Your task to perform on an android device: make emails show in primary in the gmail app Image 0: 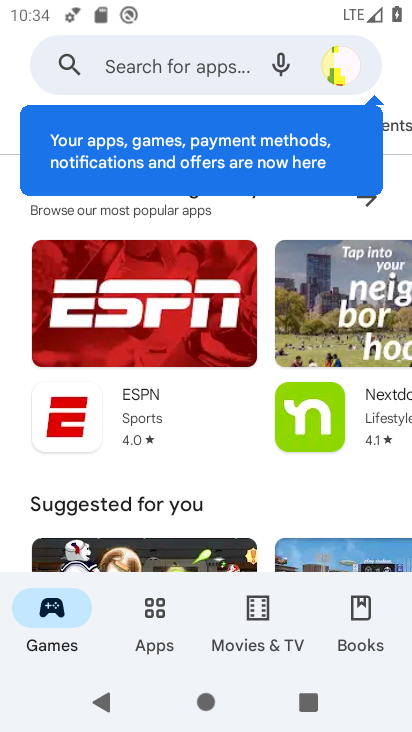
Step 0: press home button
Your task to perform on an android device: make emails show in primary in the gmail app Image 1: 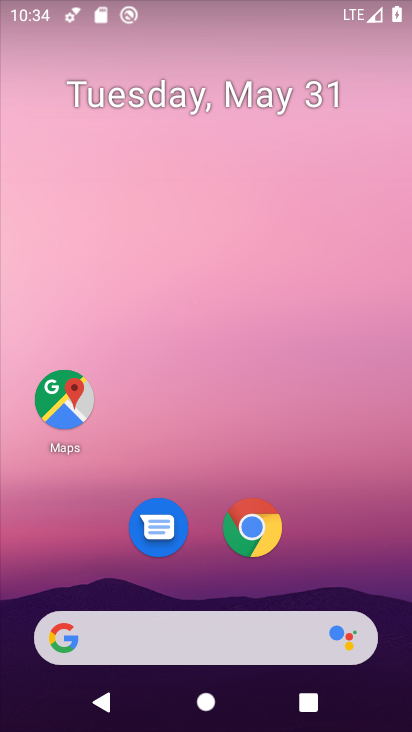
Step 1: drag from (354, 609) to (324, 2)
Your task to perform on an android device: make emails show in primary in the gmail app Image 2: 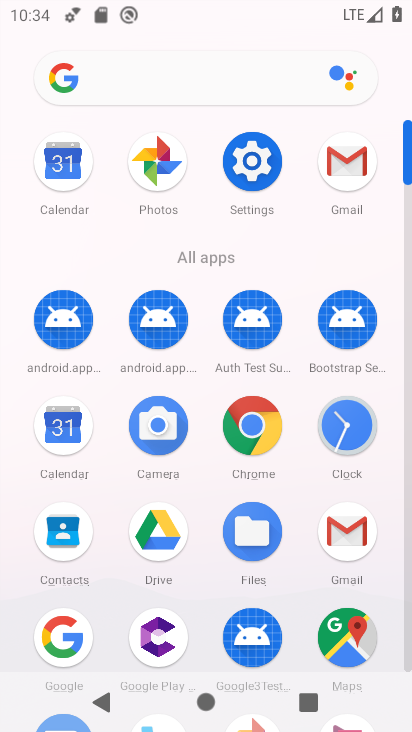
Step 2: click (344, 166)
Your task to perform on an android device: make emails show in primary in the gmail app Image 3: 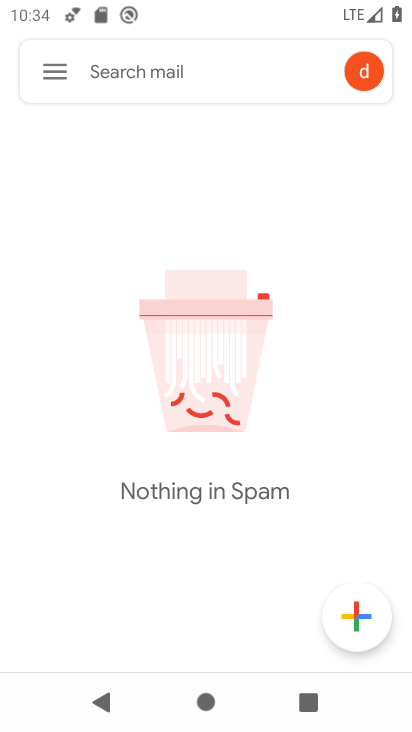
Step 3: click (50, 76)
Your task to perform on an android device: make emails show in primary in the gmail app Image 4: 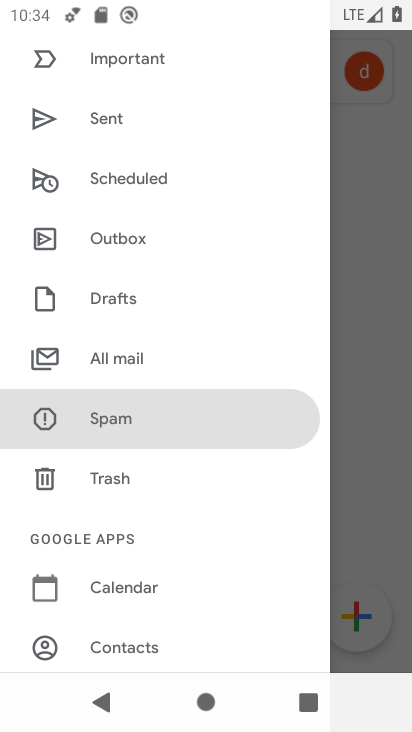
Step 4: drag from (223, 548) to (192, 206)
Your task to perform on an android device: make emails show in primary in the gmail app Image 5: 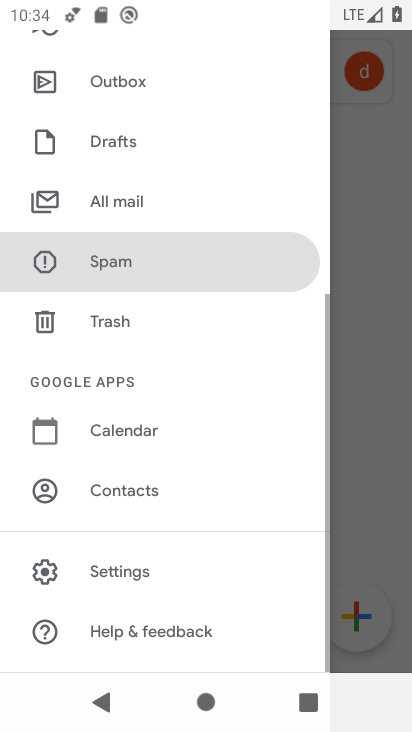
Step 5: click (136, 577)
Your task to perform on an android device: make emails show in primary in the gmail app Image 6: 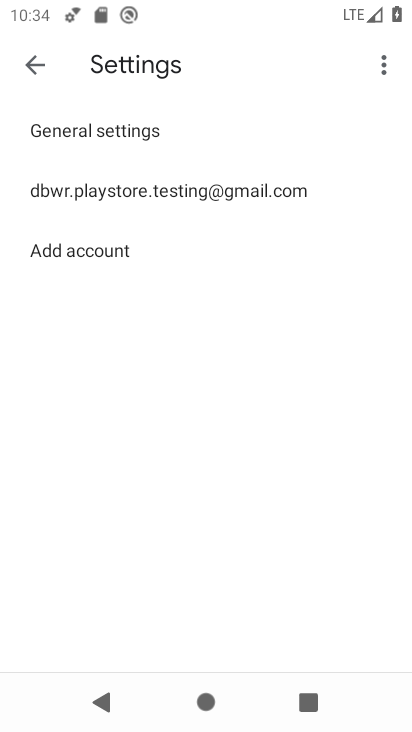
Step 6: click (77, 194)
Your task to perform on an android device: make emails show in primary in the gmail app Image 7: 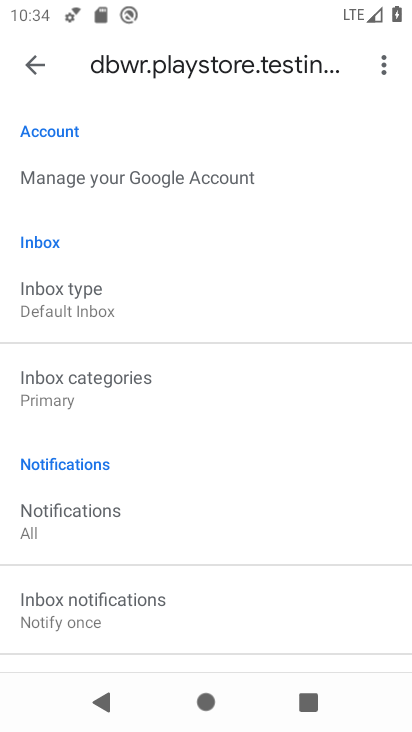
Step 7: click (69, 390)
Your task to perform on an android device: make emails show in primary in the gmail app Image 8: 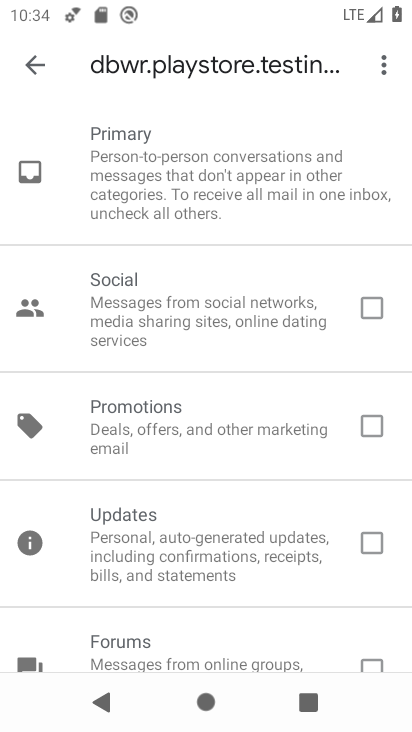
Step 8: drag from (162, 529) to (193, 151)
Your task to perform on an android device: make emails show in primary in the gmail app Image 9: 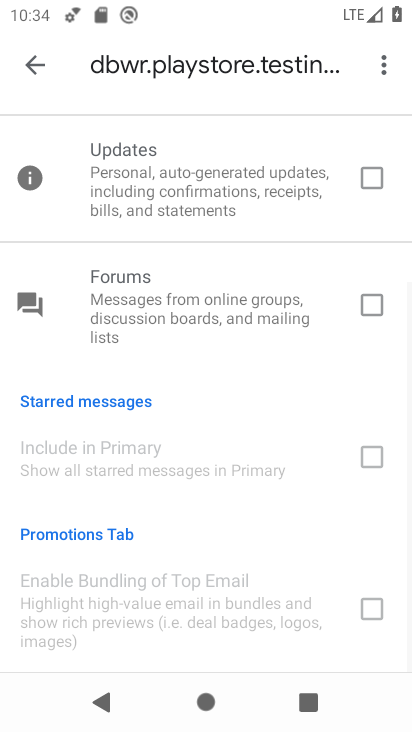
Step 9: click (35, 60)
Your task to perform on an android device: make emails show in primary in the gmail app Image 10: 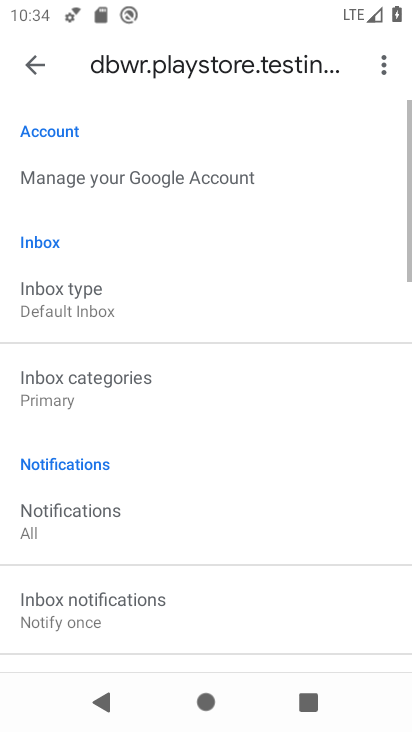
Step 10: task complete